Your task to perform on an android device: Play the last video I watched on Youtube Image 0: 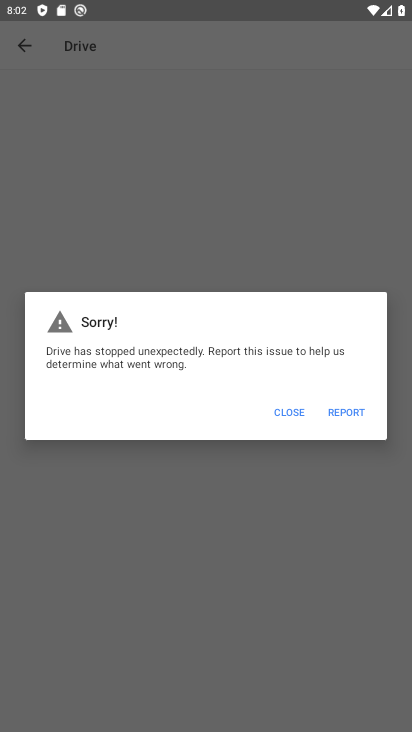
Step 0: click (286, 412)
Your task to perform on an android device: Play the last video I watched on Youtube Image 1: 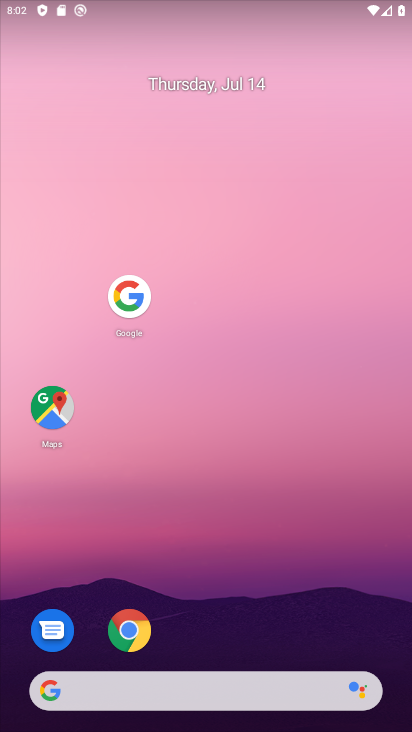
Step 1: drag from (237, 621) to (226, 136)
Your task to perform on an android device: Play the last video I watched on Youtube Image 2: 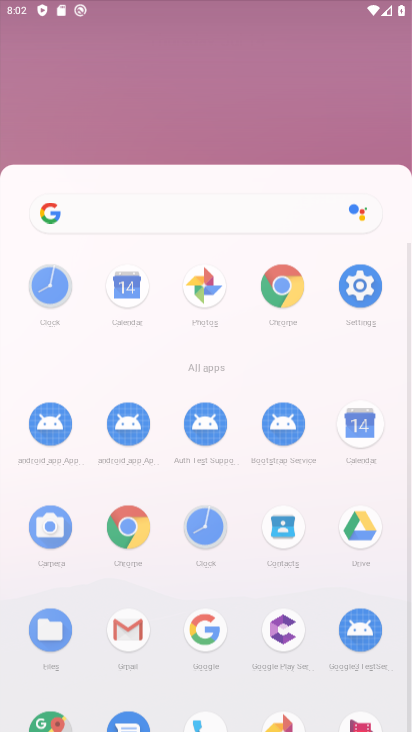
Step 2: drag from (231, 140) to (200, 1)
Your task to perform on an android device: Play the last video I watched on Youtube Image 3: 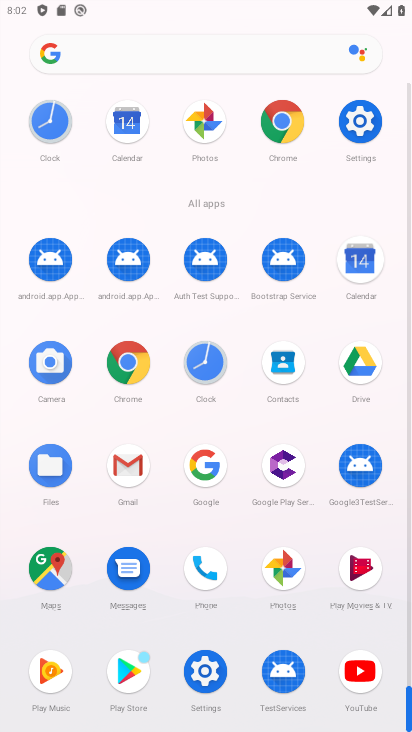
Step 3: click (353, 672)
Your task to perform on an android device: Play the last video I watched on Youtube Image 4: 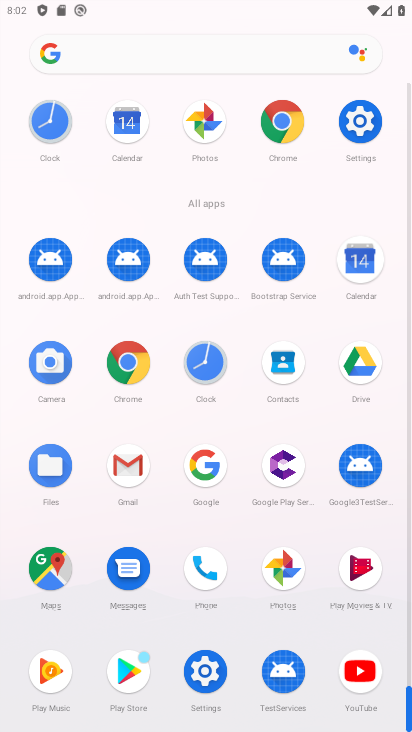
Step 4: click (353, 672)
Your task to perform on an android device: Play the last video I watched on Youtube Image 5: 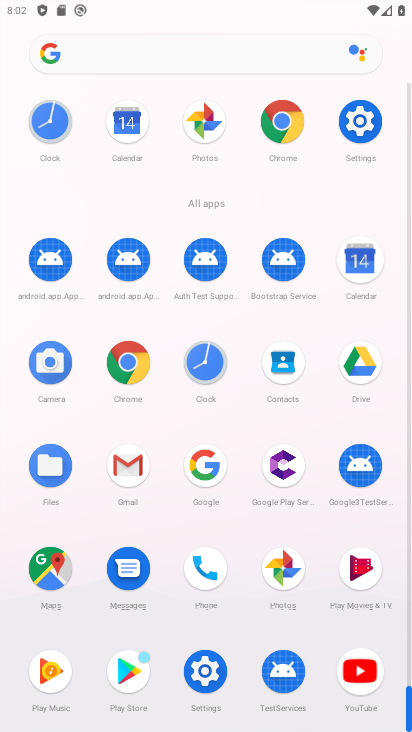
Step 5: click (355, 672)
Your task to perform on an android device: Play the last video I watched on Youtube Image 6: 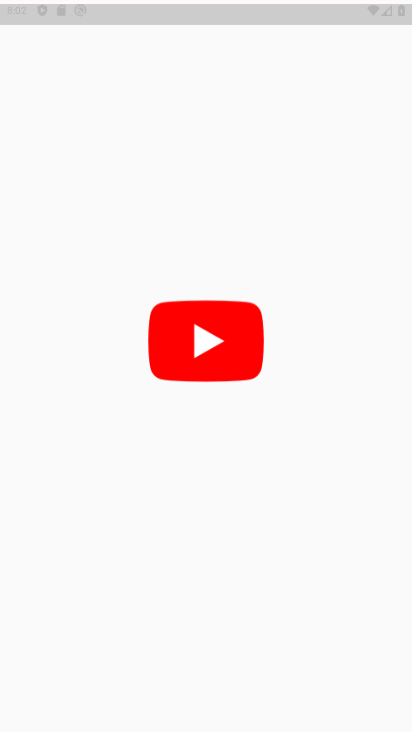
Step 6: click (355, 672)
Your task to perform on an android device: Play the last video I watched on Youtube Image 7: 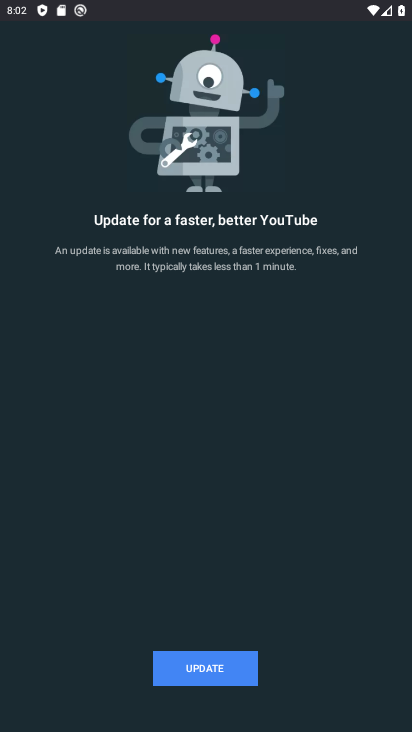
Step 7: click (210, 670)
Your task to perform on an android device: Play the last video I watched on Youtube Image 8: 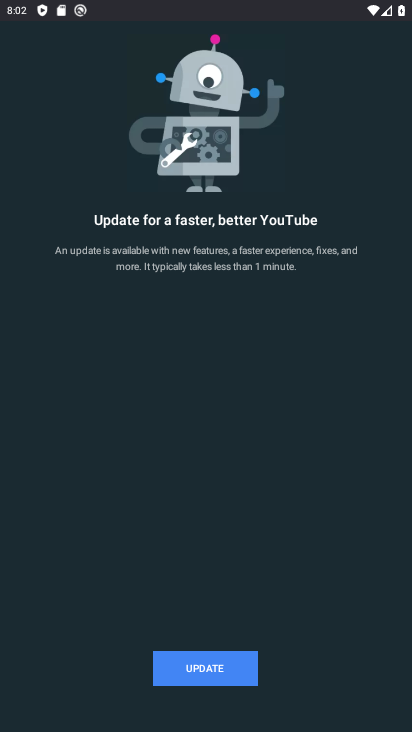
Step 8: click (209, 669)
Your task to perform on an android device: Play the last video I watched on Youtube Image 9: 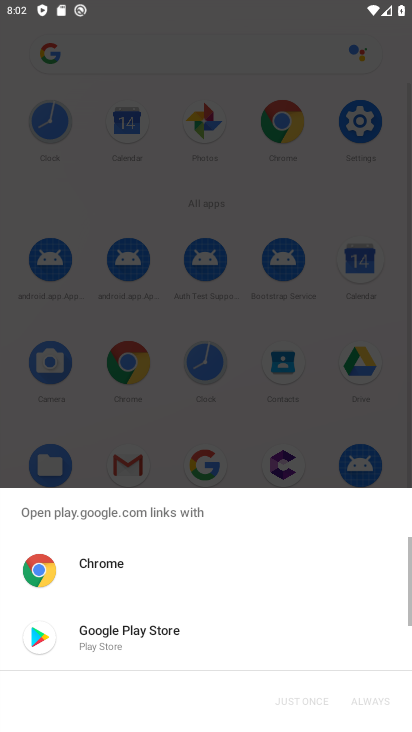
Step 9: click (210, 665)
Your task to perform on an android device: Play the last video I watched on Youtube Image 10: 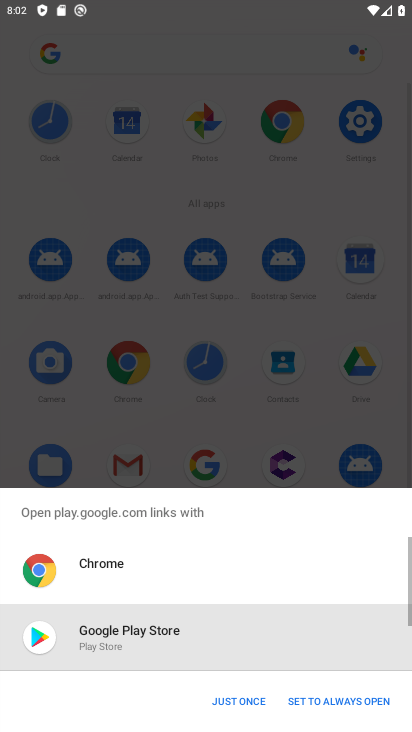
Step 10: click (116, 572)
Your task to perform on an android device: Play the last video I watched on Youtube Image 11: 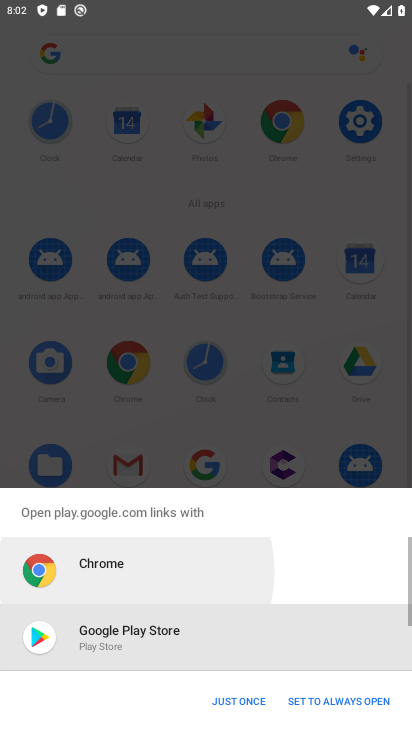
Step 11: click (114, 568)
Your task to perform on an android device: Play the last video I watched on Youtube Image 12: 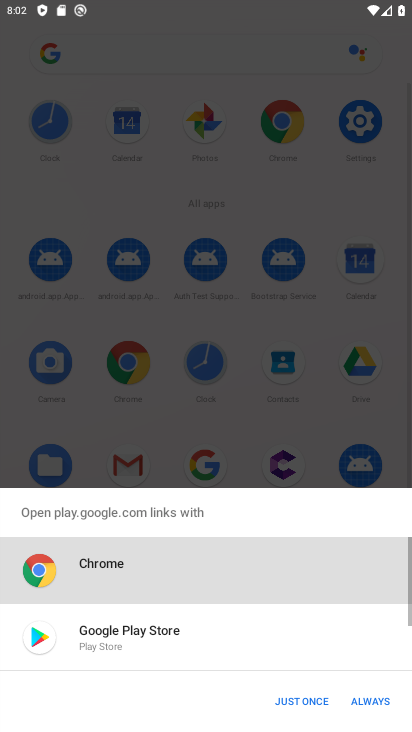
Step 12: click (114, 568)
Your task to perform on an android device: Play the last video I watched on Youtube Image 13: 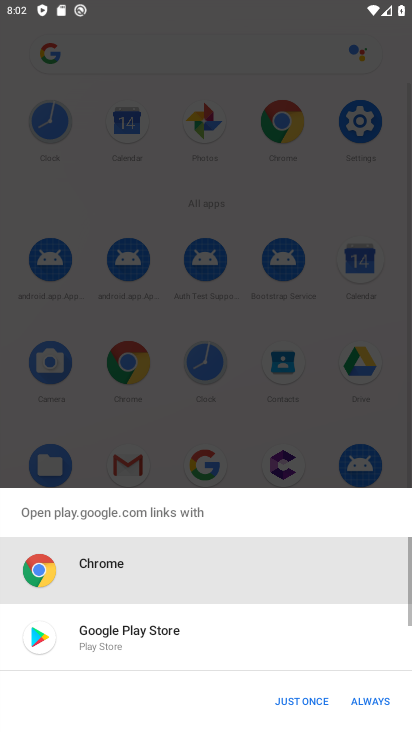
Step 13: click (115, 567)
Your task to perform on an android device: Play the last video I watched on Youtube Image 14: 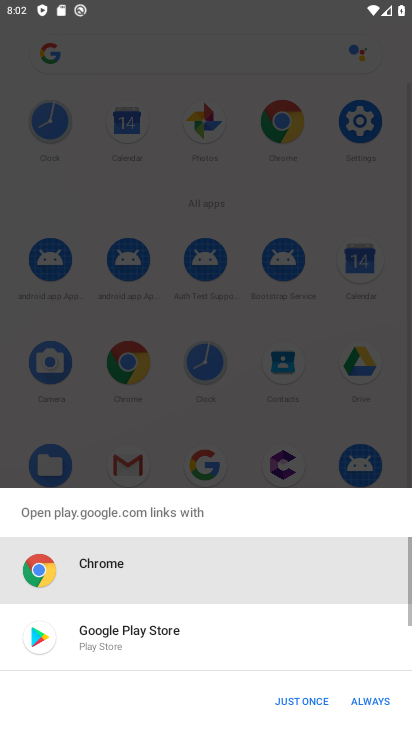
Step 14: click (115, 567)
Your task to perform on an android device: Play the last video I watched on Youtube Image 15: 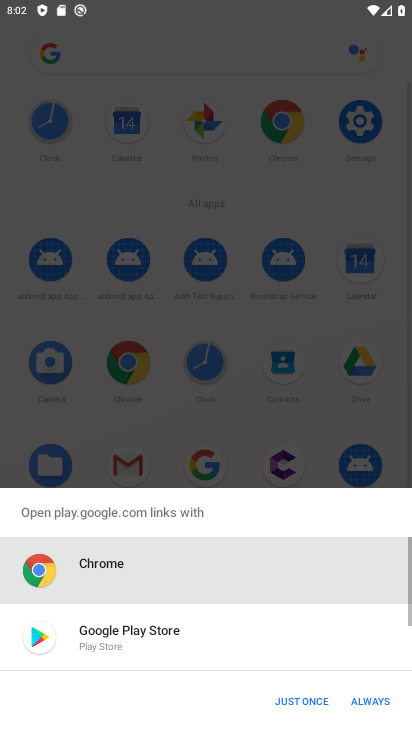
Step 15: click (117, 570)
Your task to perform on an android device: Play the last video I watched on Youtube Image 16: 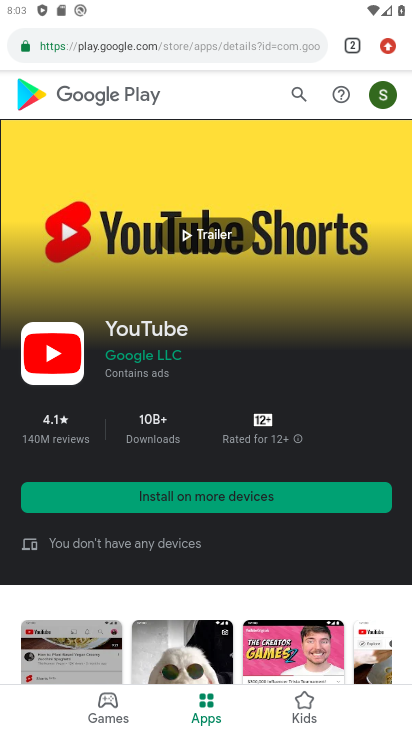
Step 16: drag from (391, 49) to (145, 107)
Your task to perform on an android device: Play the last video I watched on Youtube Image 17: 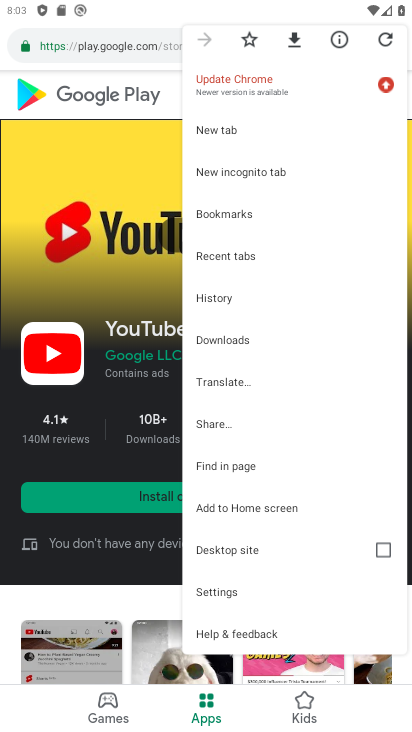
Step 17: click (157, 113)
Your task to perform on an android device: Play the last video I watched on Youtube Image 18: 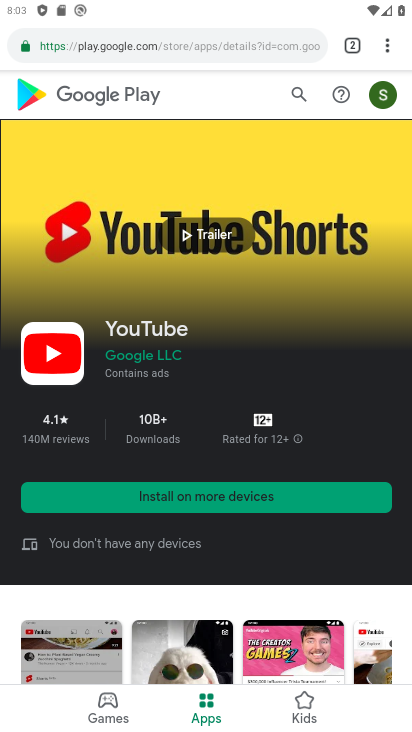
Step 18: task complete